Your task to perform on an android device: Open Chrome and go to settings Image 0: 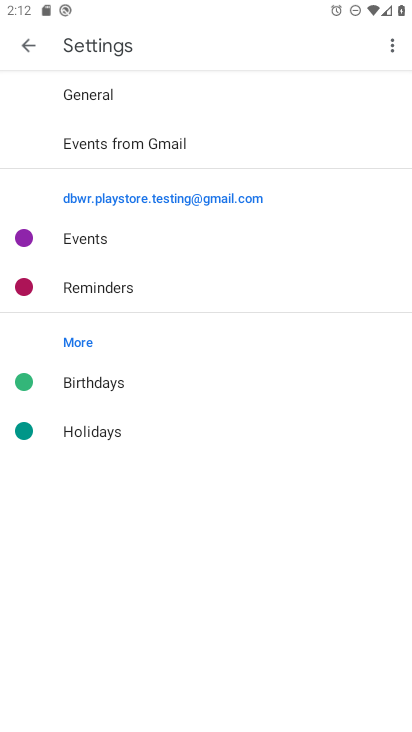
Step 0: press home button
Your task to perform on an android device: Open Chrome and go to settings Image 1: 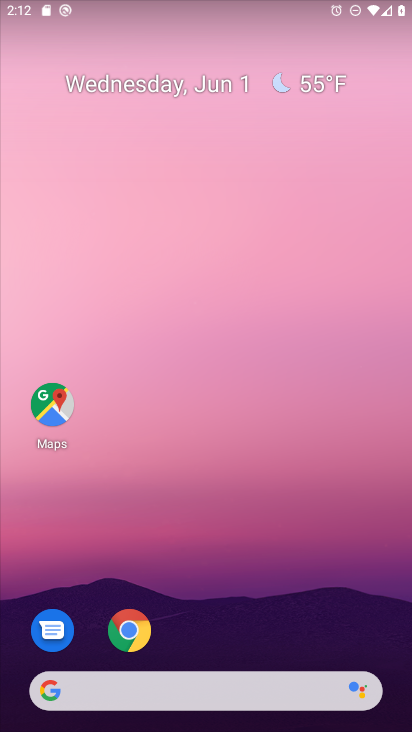
Step 1: drag from (227, 624) to (278, 21)
Your task to perform on an android device: Open Chrome and go to settings Image 2: 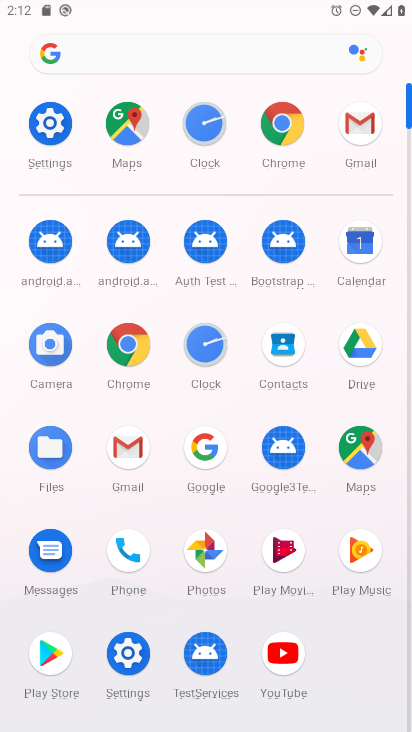
Step 2: click (122, 336)
Your task to perform on an android device: Open Chrome and go to settings Image 3: 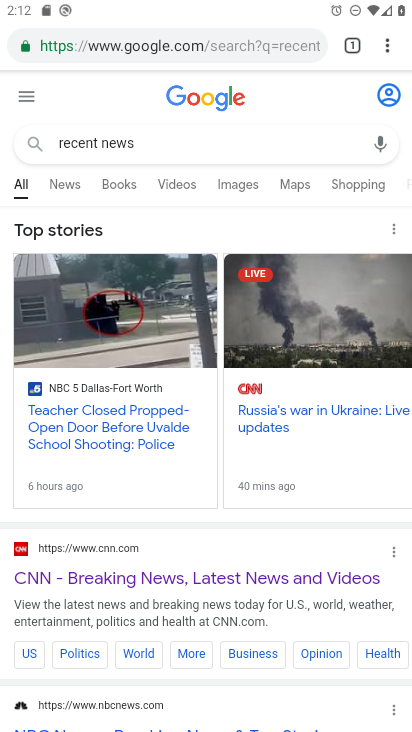
Step 3: task complete